Your task to perform on an android device: Search for good Korean restaurants Image 0: 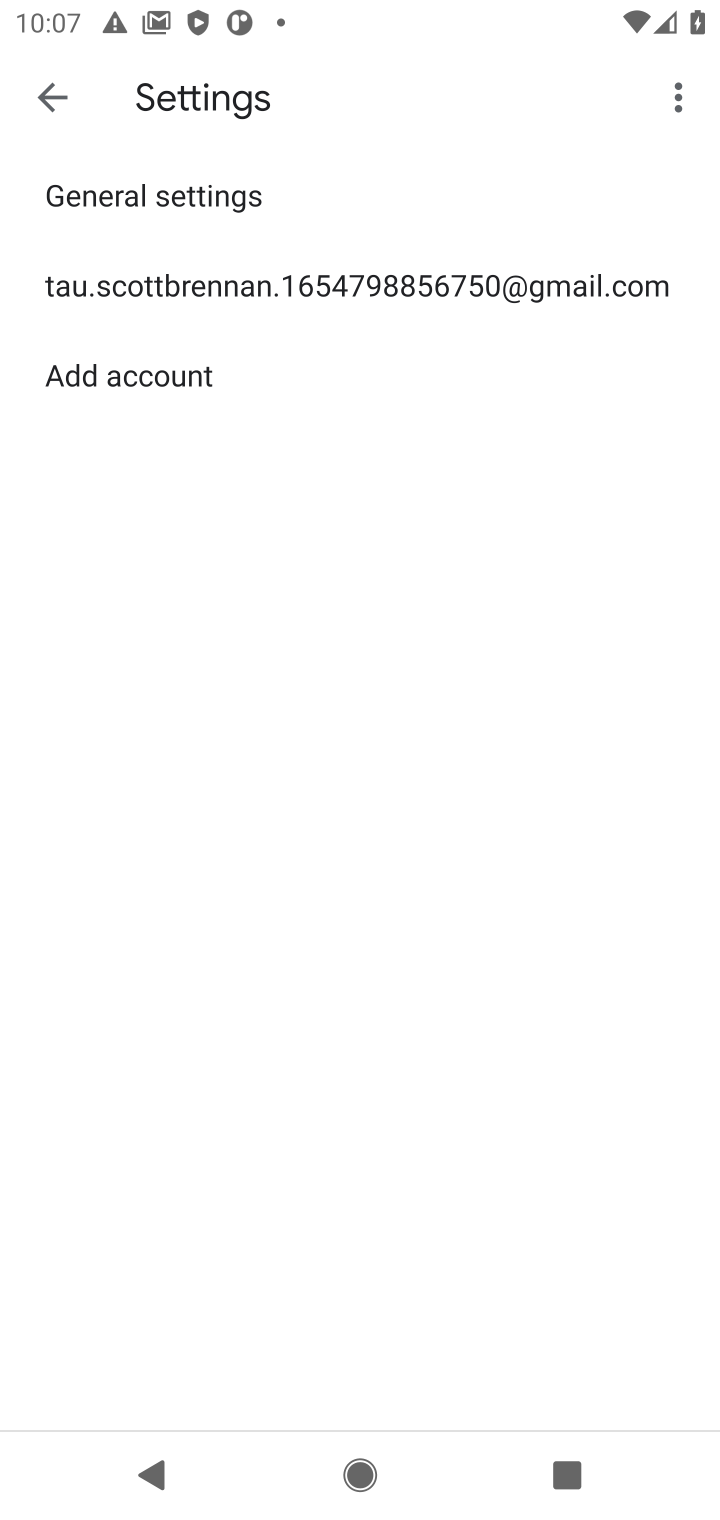
Step 0: press home button
Your task to perform on an android device: Search for good Korean restaurants Image 1: 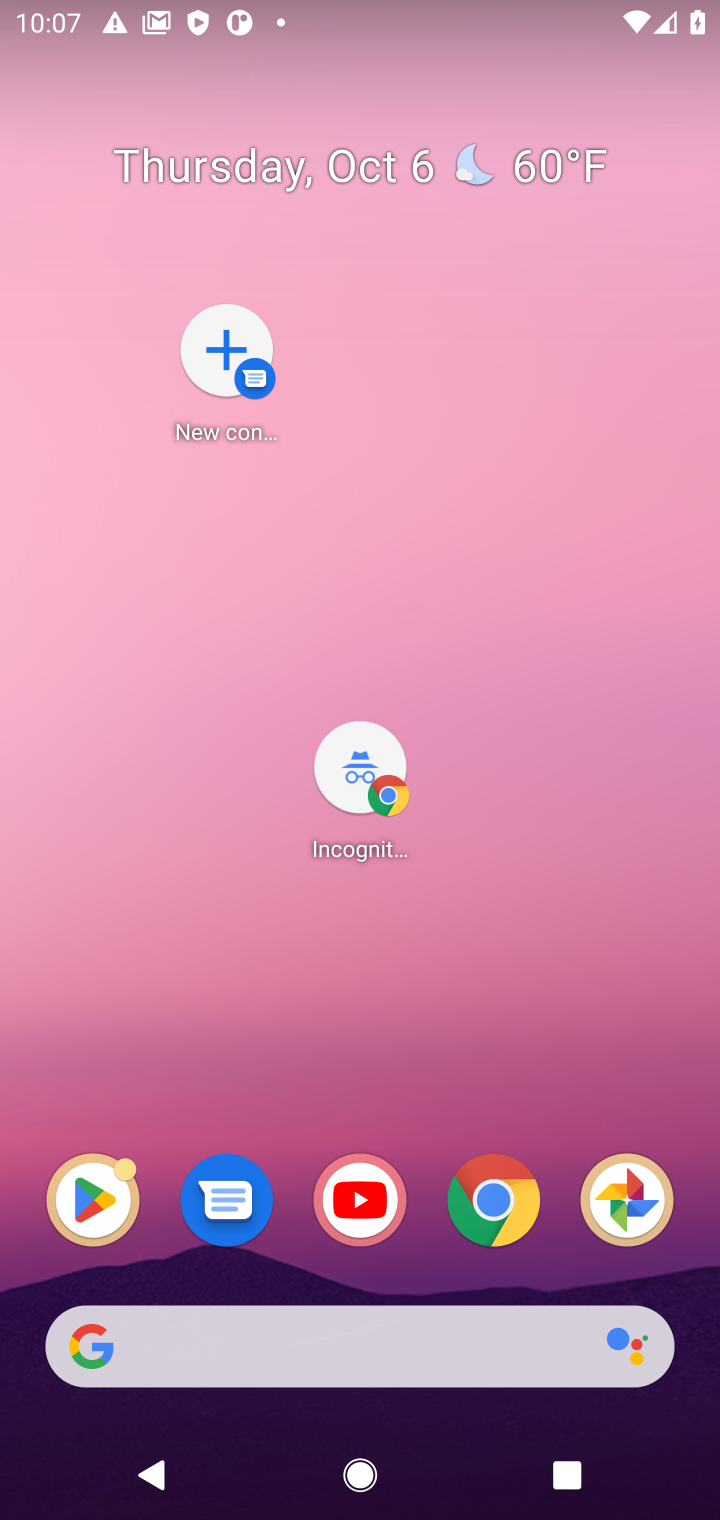
Step 1: drag from (178, 1242) to (237, 891)
Your task to perform on an android device: Search for good Korean restaurants Image 2: 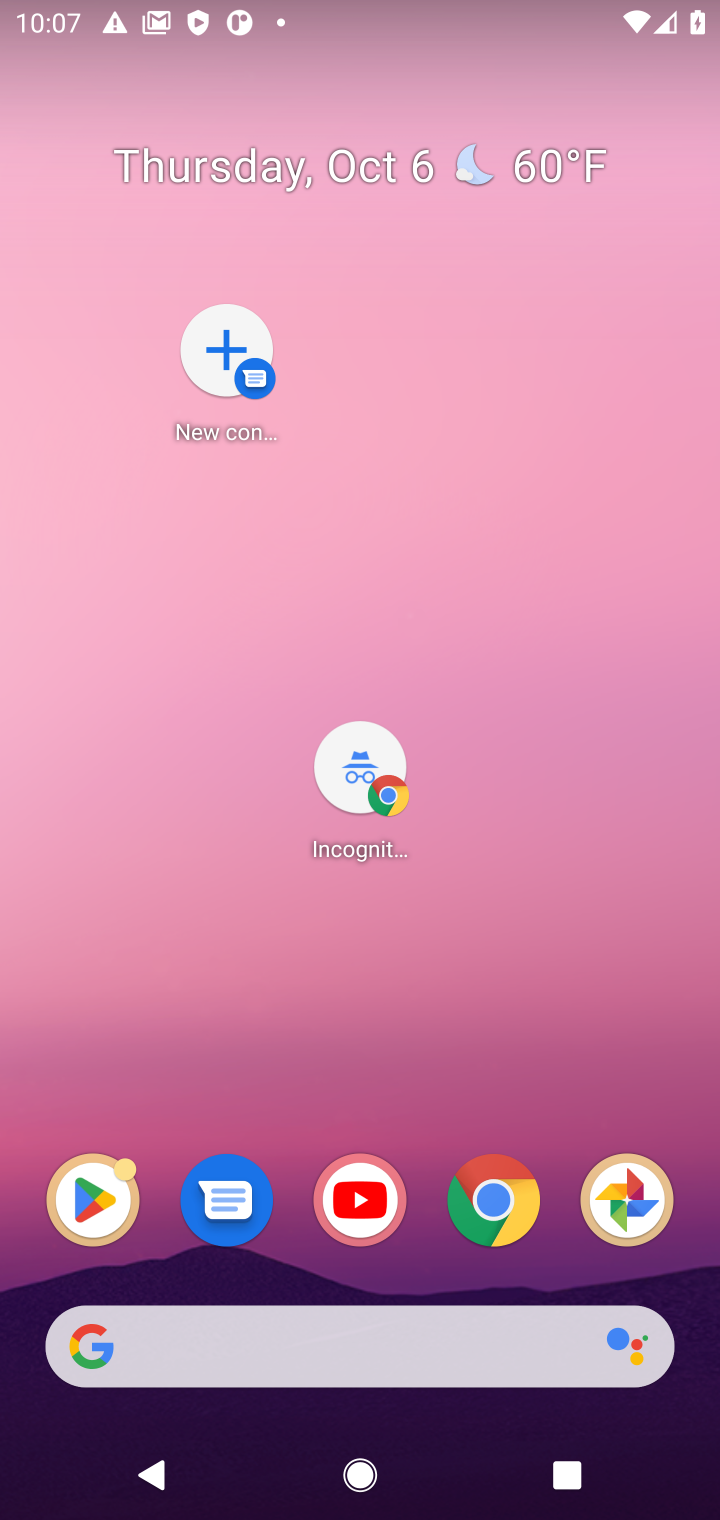
Step 2: drag from (263, 826) to (308, 372)
Your task to perform on an android device: Search for good Korean restaurants Image 3: 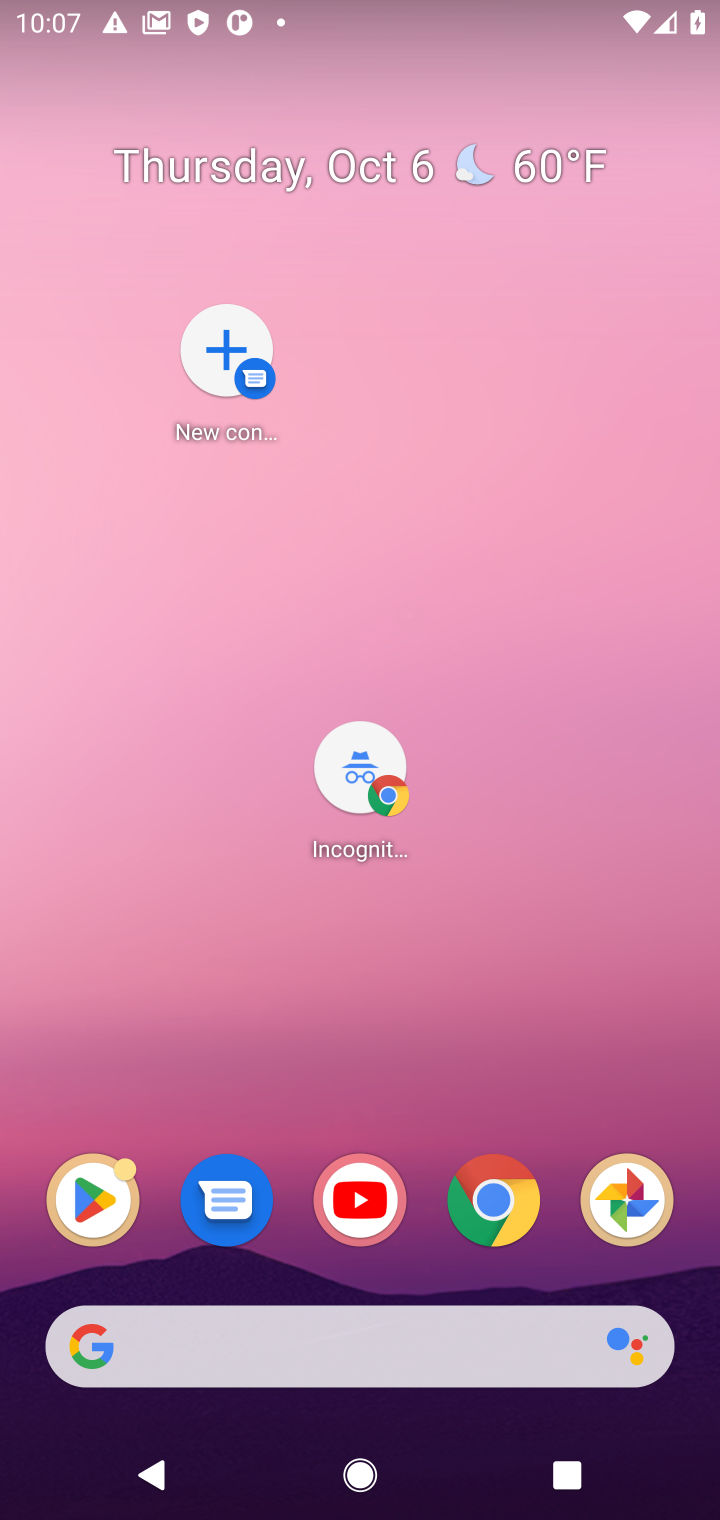
Step 3: drag from (324, 1333) to (612, 35)
Your task to perform on an android device: Search for good Korean restaurants Image 4: 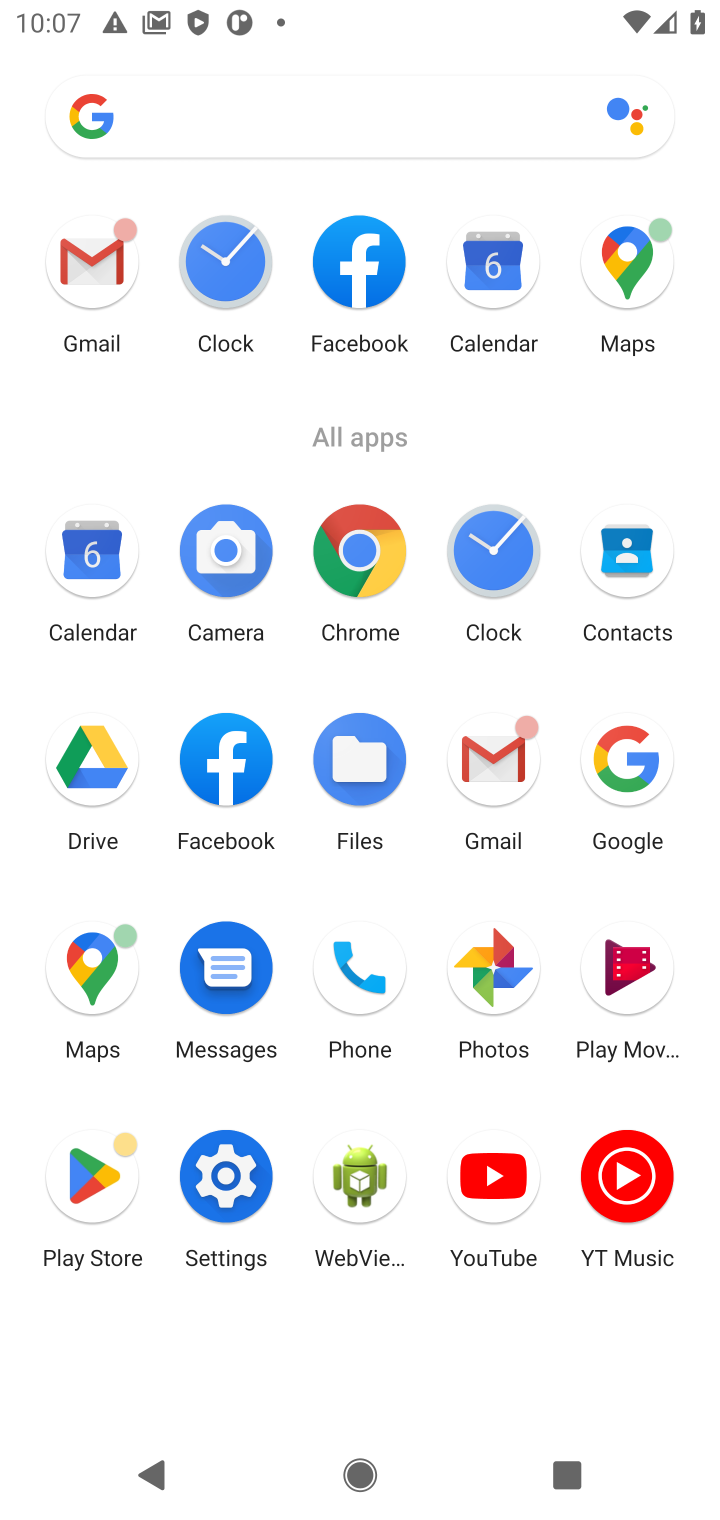
Step 4: click (625, 755)
Your task to perform on an android device: Search for good Korean restaurants Image 5: 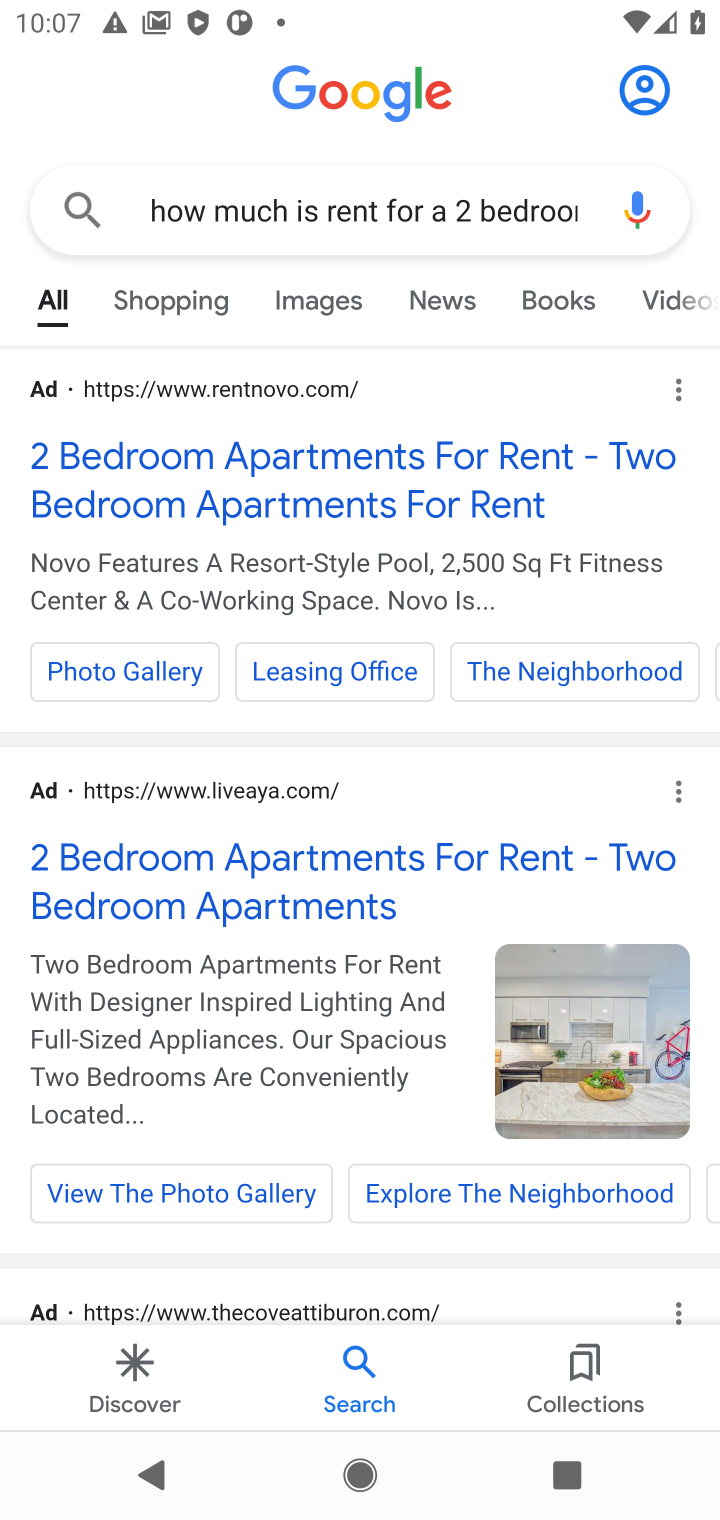
Step 5: click (276, 229)
Your task to perform on an android device: Search for good Korean restaurants Image 6: 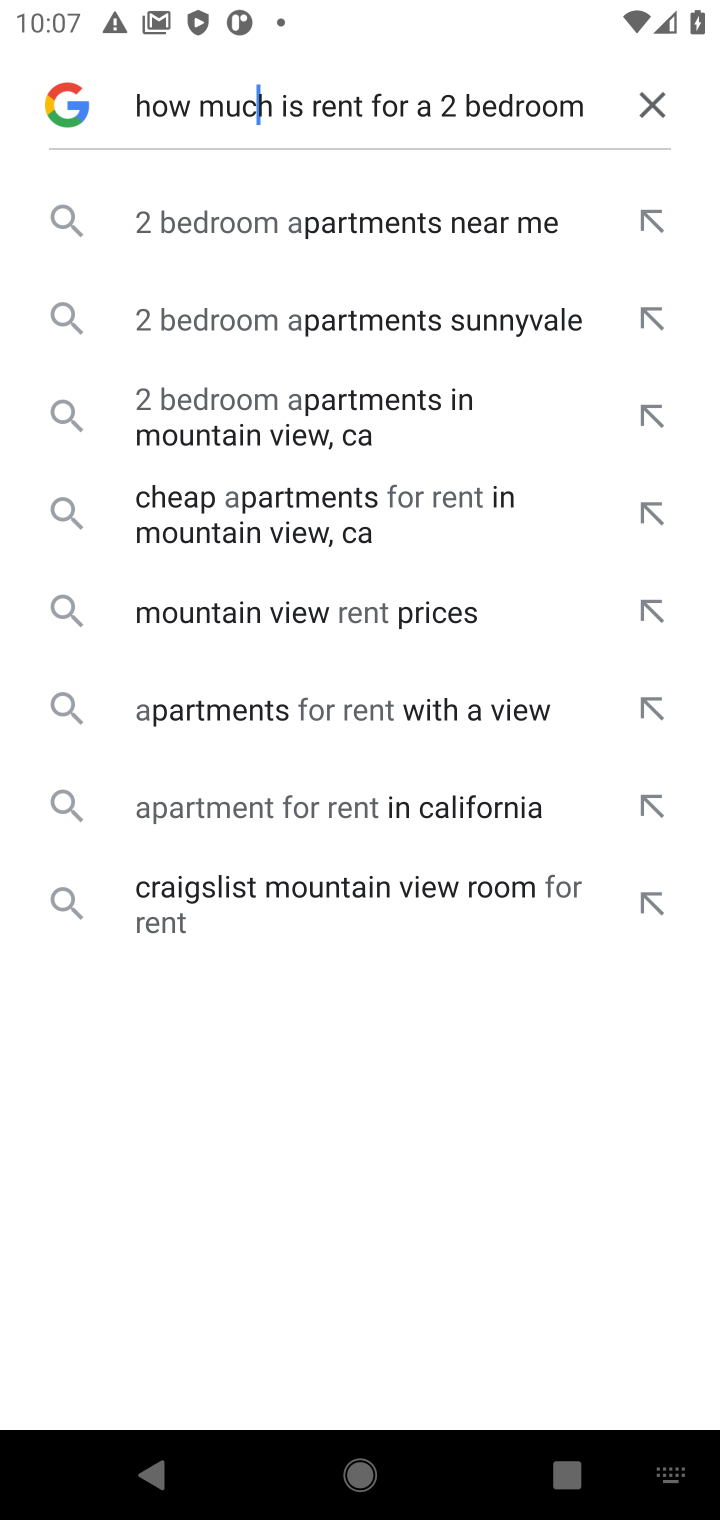
Step 6: click (663, 100)
Your task to perform on an android device: Search for good Korean restaurants Image 7: 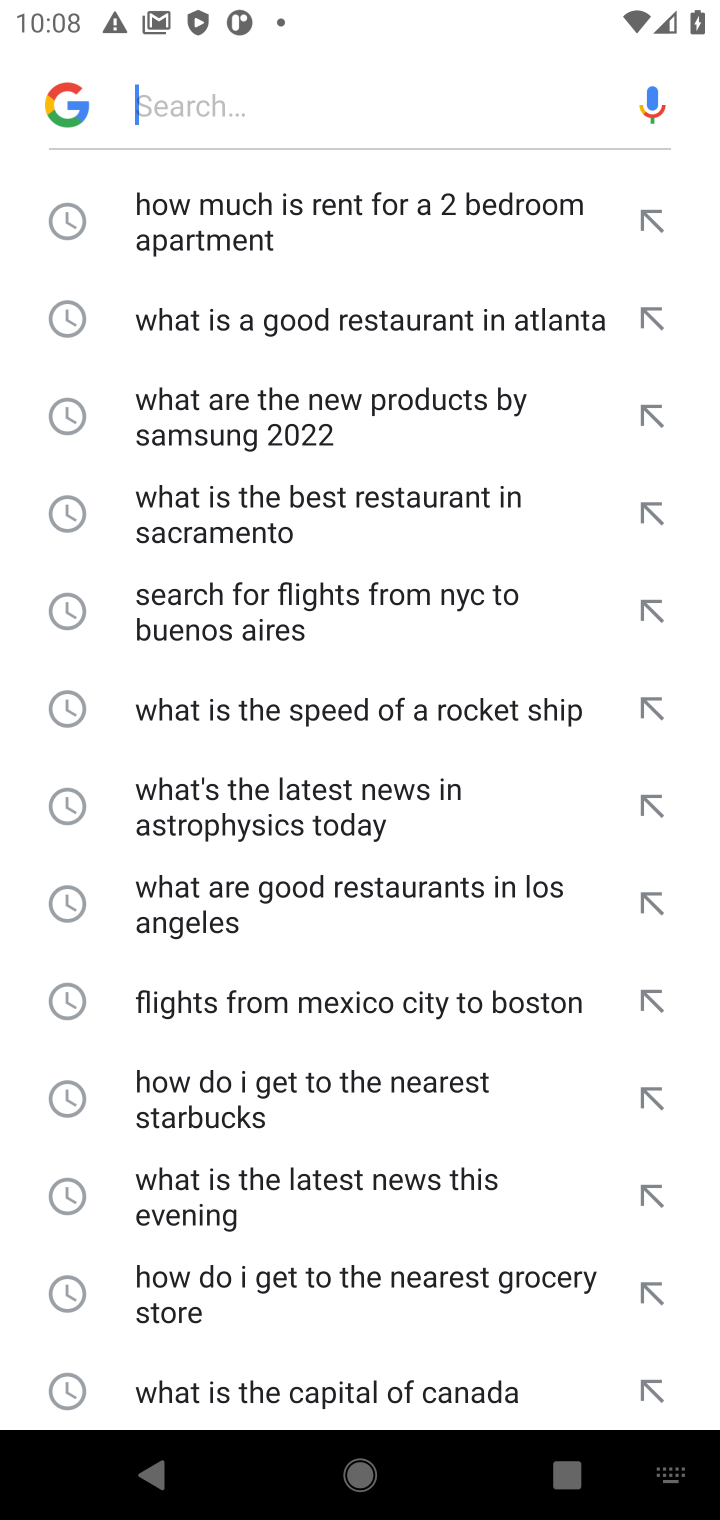
Step 7: type "Search for good Korean restaurants"
Your task to perform on an android device: Search for good Korean restaurants Image 8: 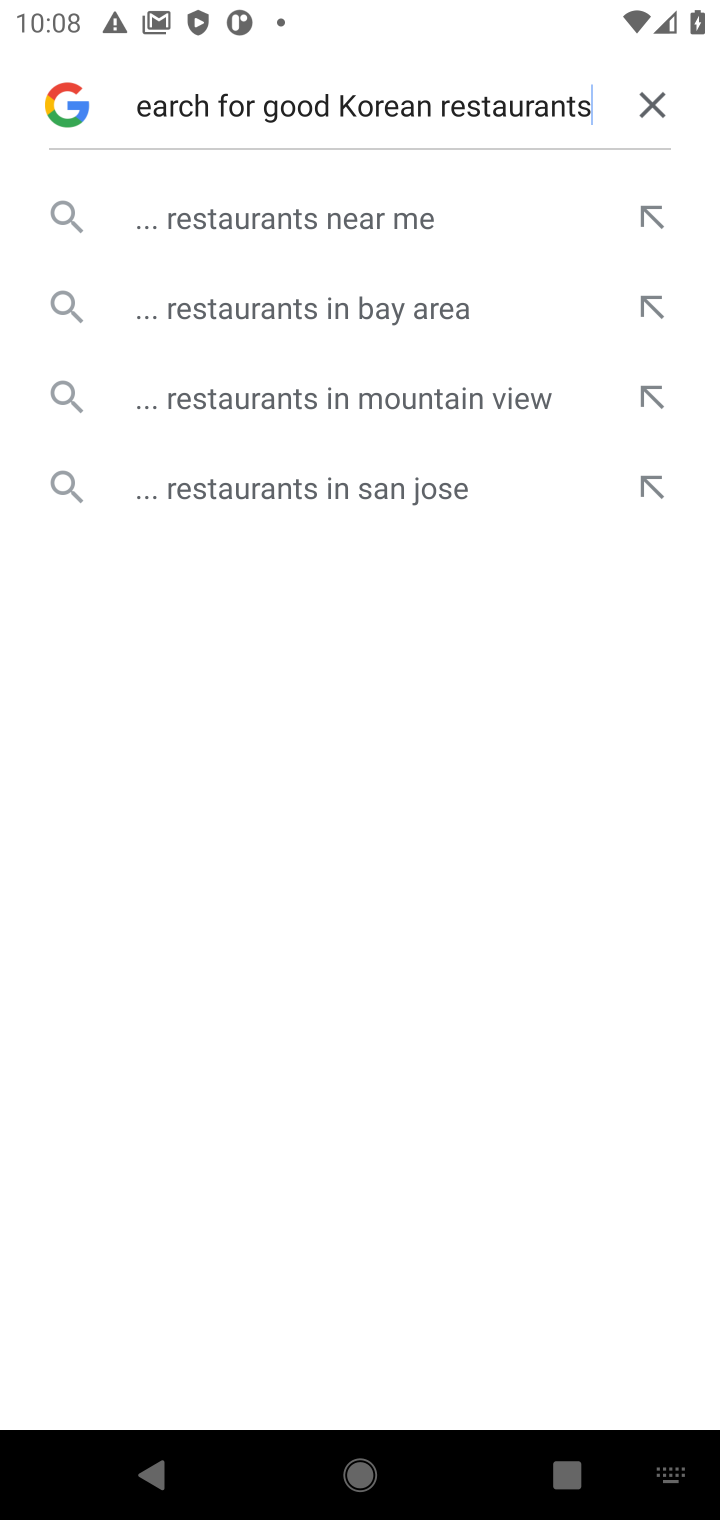
Step 8: click (221, 226)
Your task to perform on an android device: Search for good Korean restaurants Image 9: 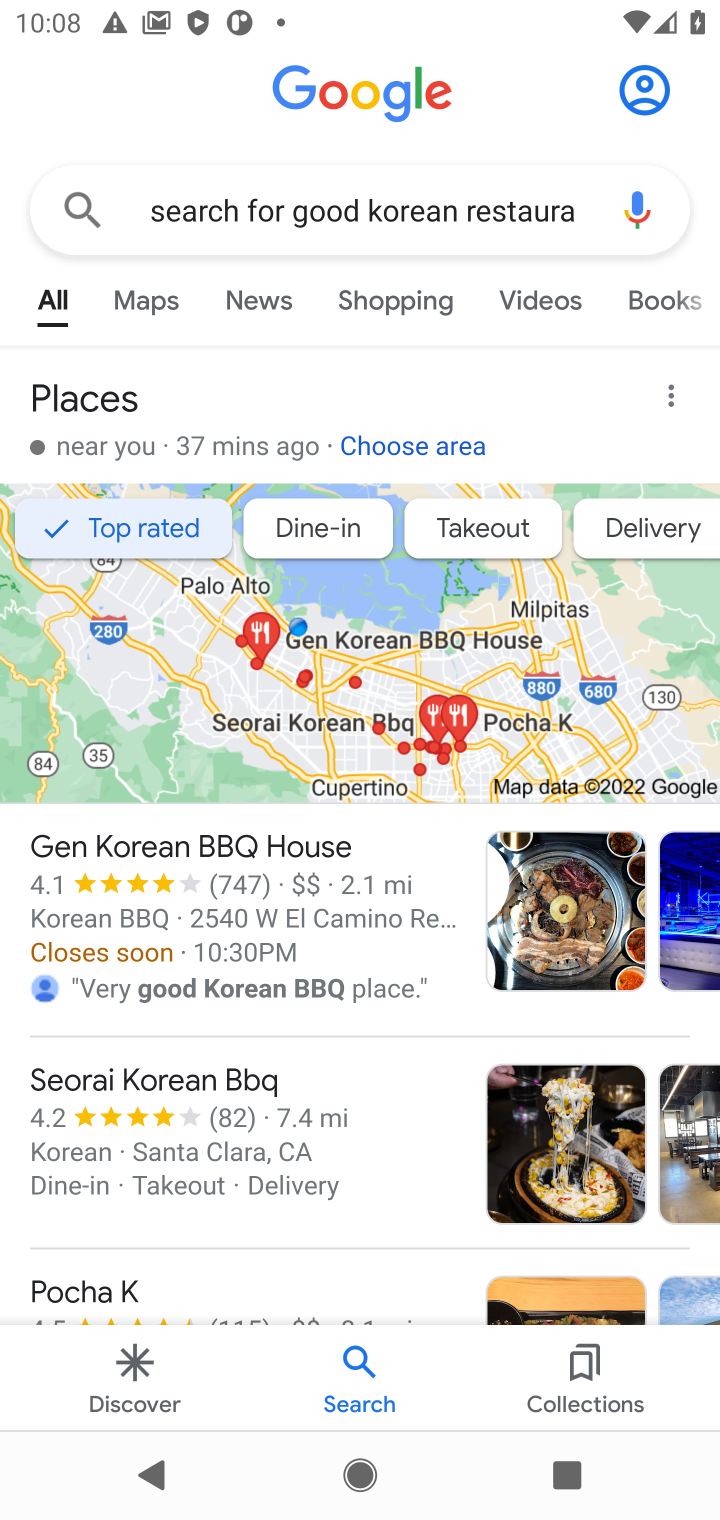
Step 9: task complete